Your task to perform on an android device: set the timer Image 0: 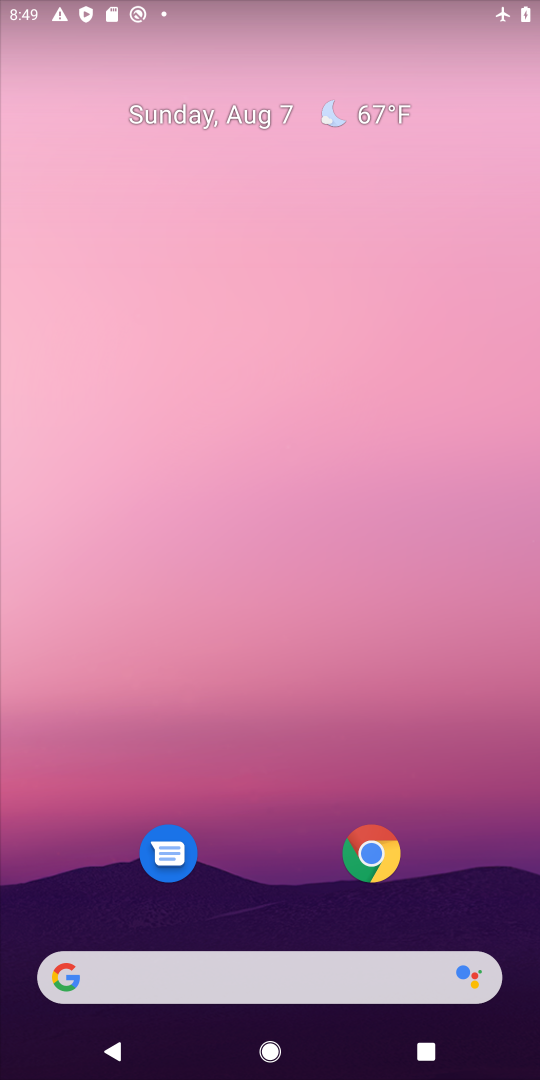
Step 0: drag from (312, 831) to (312, 379)
Your task to perform on an android device: set the timer Image 1: 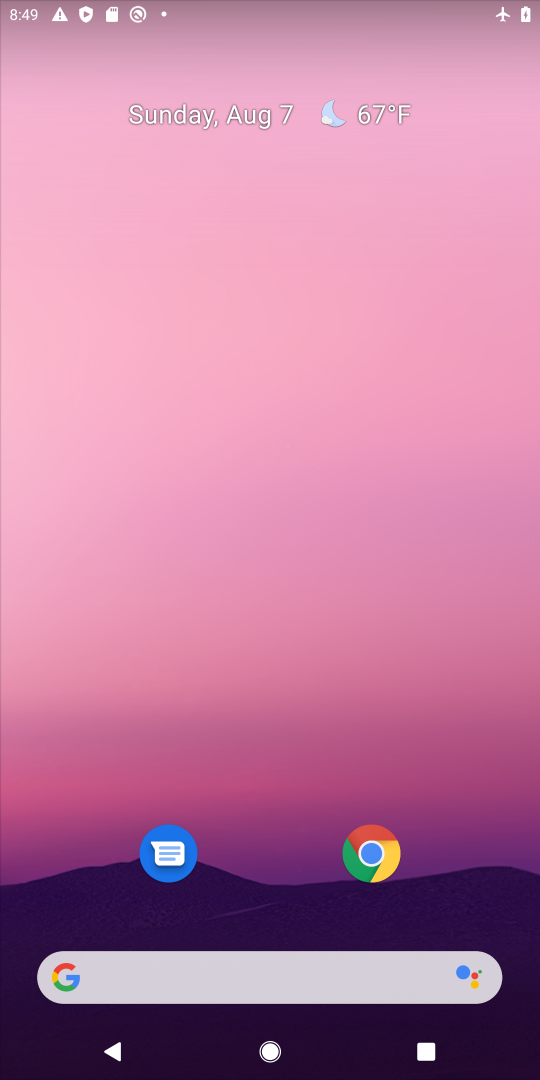
Step 1: drag from (239, 978) to (345, 305)
Your task to perform on an android device: set the timer Image 2: 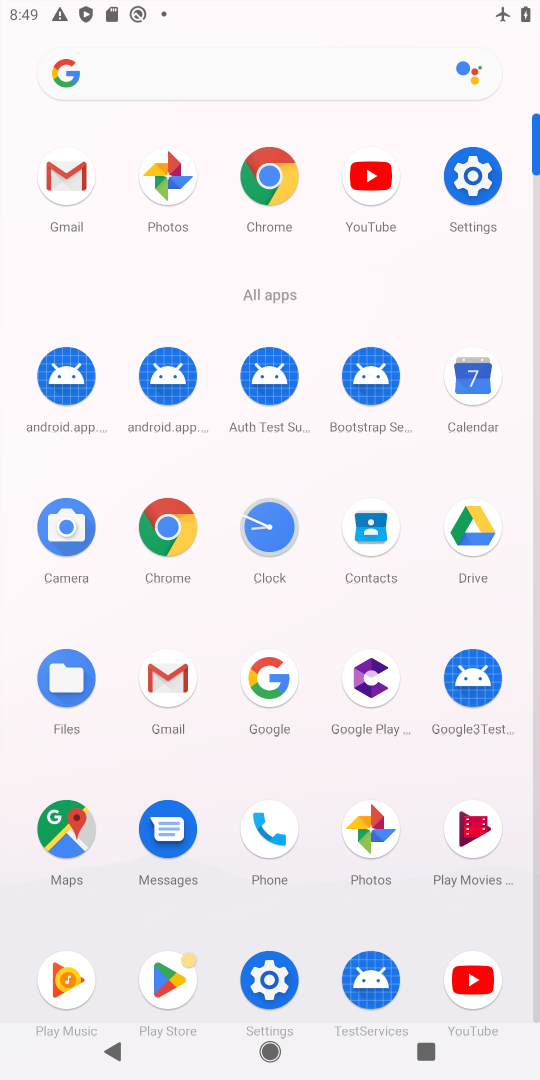
Step 2: click (280, 174)
Your task to perform on an android device: set the timer Image 3: 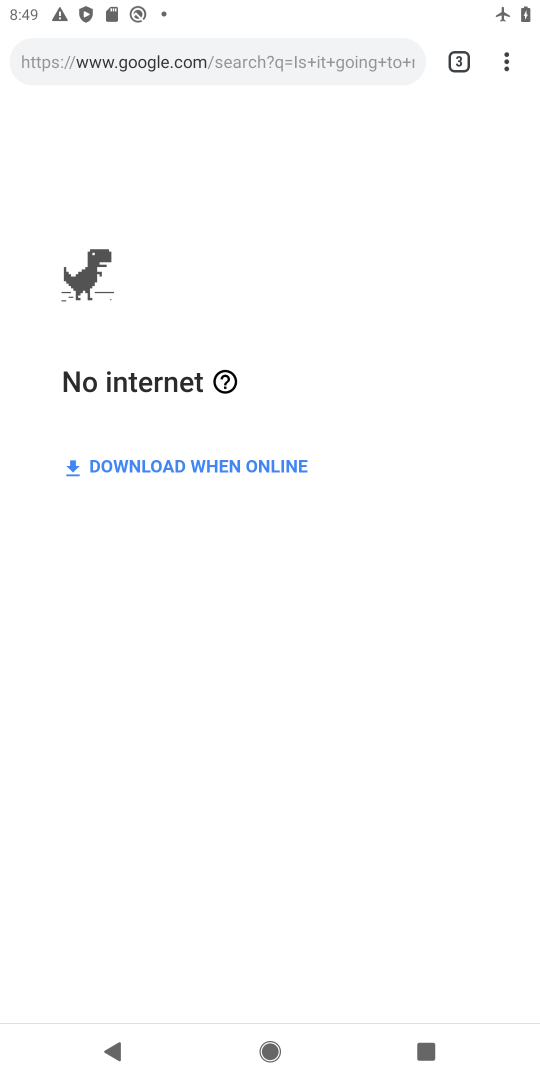
Step 3: click (515, 56)
Your task to perform on an android device: set the timer Image 4: 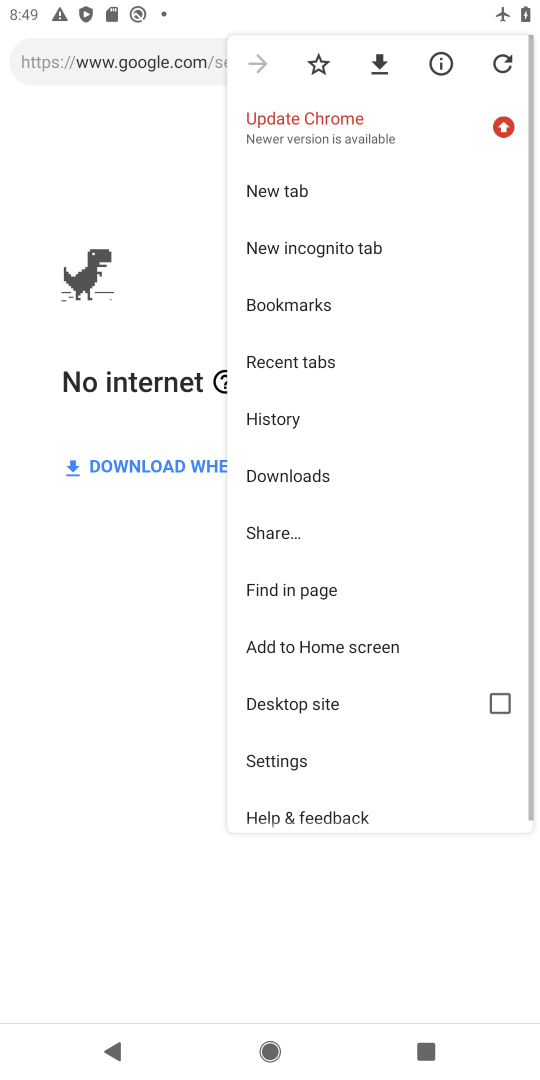
Step 4: drag from (502, 56) to (539, 365)
Your task to perform on an android device: set the timer Image 5: 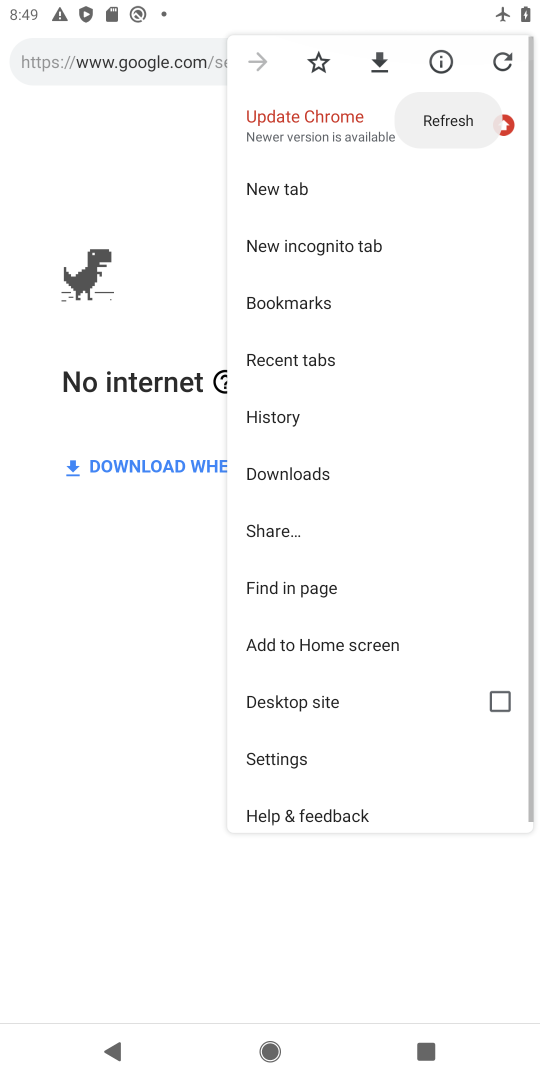
Step 5: press home button
Your task to perform on an android device: set the timer Image 6: 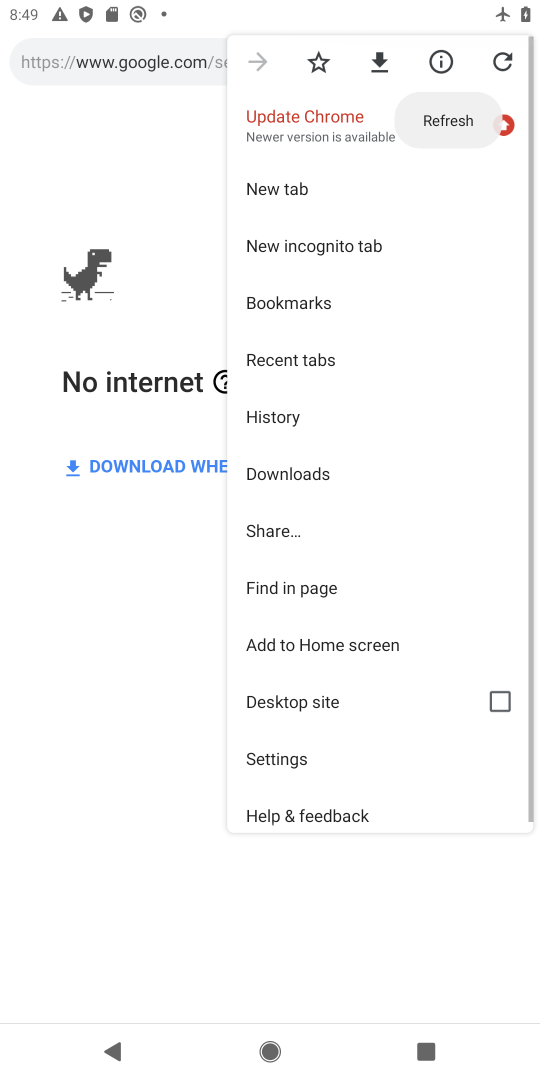
Step 6: click (477, 584)
Your task to perform on an android device: set the timer Image 7: 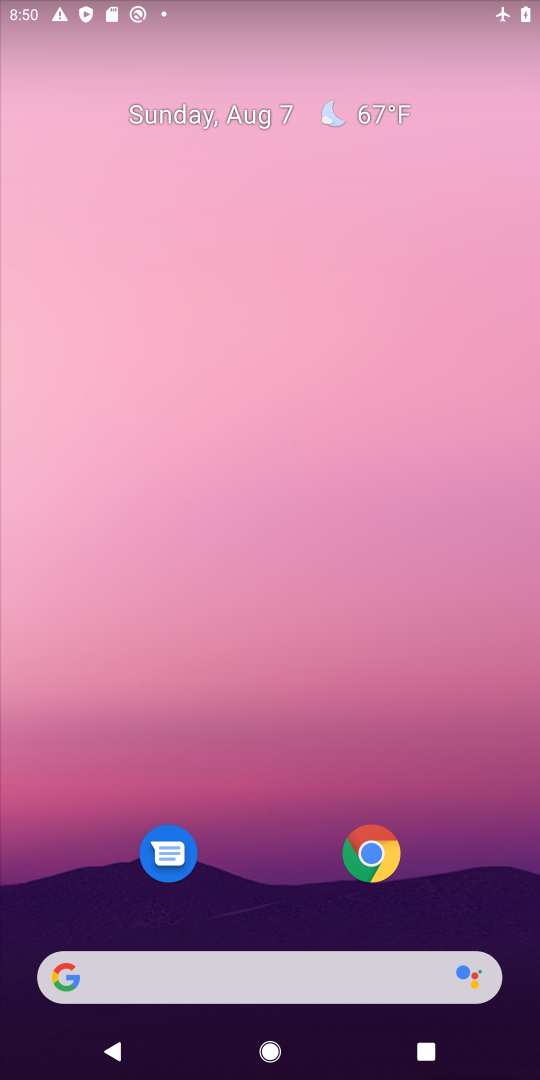
Step 7: drag from (319, 886) to (319, 313)
Your task to perform on an android device: set the timer Image 8: 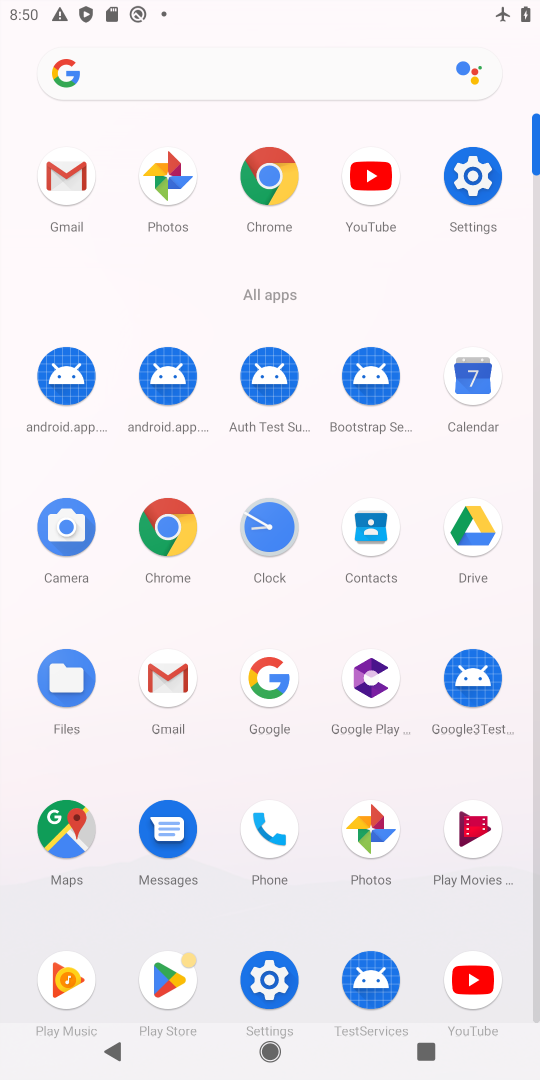
Step 8: click (271, 525)
Your task to perform on an android device: set the timer Image 9: 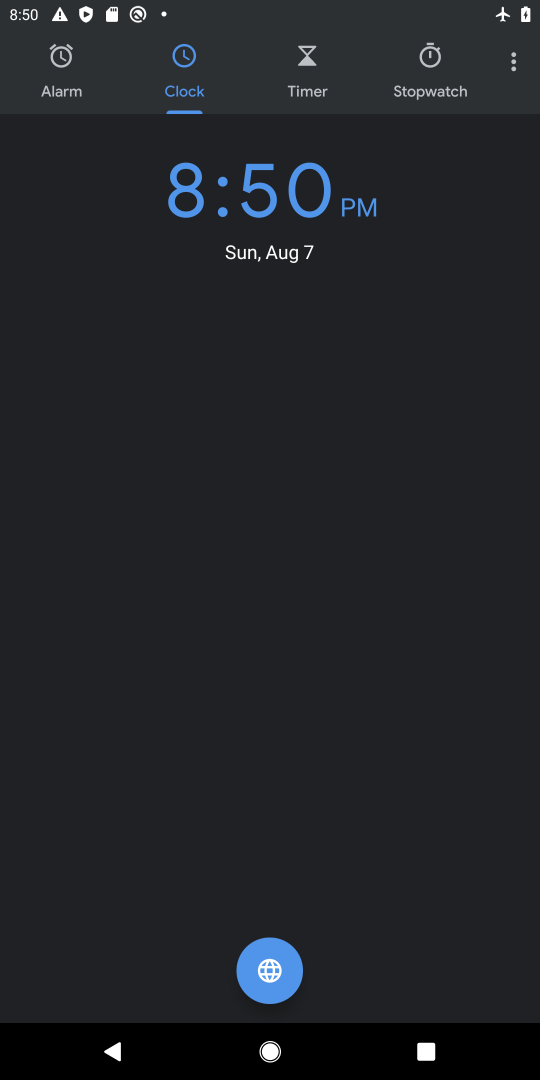
Step 9: click (304, 68)
Your task to perform on an android device: set the timer Image 10: 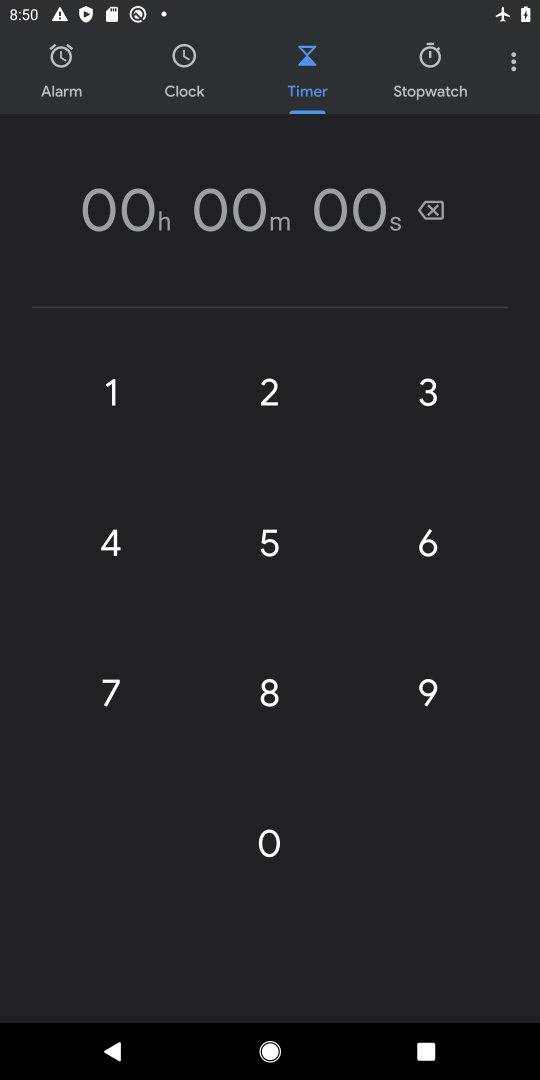
Step 10: click (298, 217)
Your task to perform on an android device: set the timer Image 11: 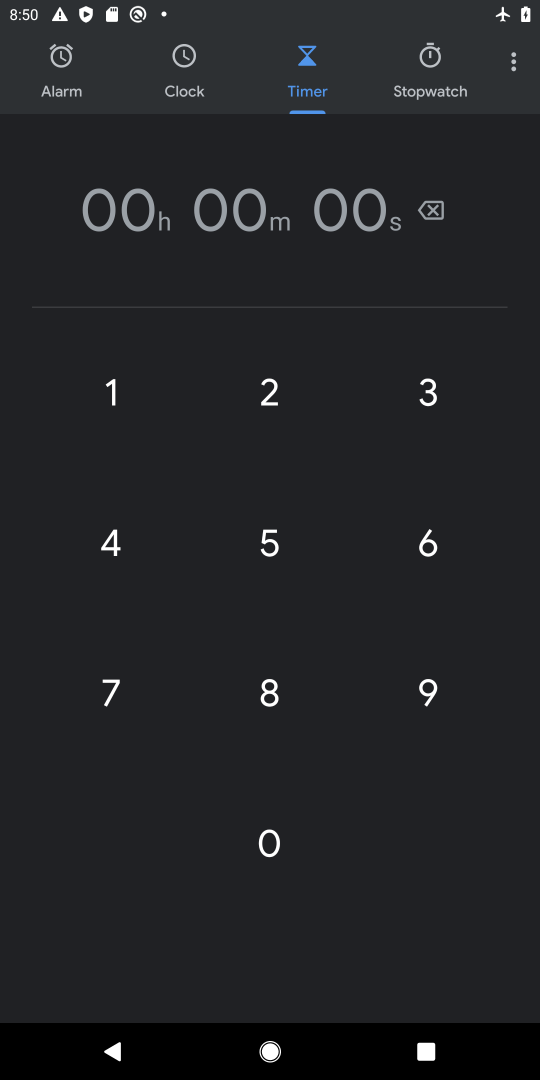
Step 11: type "65656565656 "
Your task to perform on an android device: set the timer Image 12: 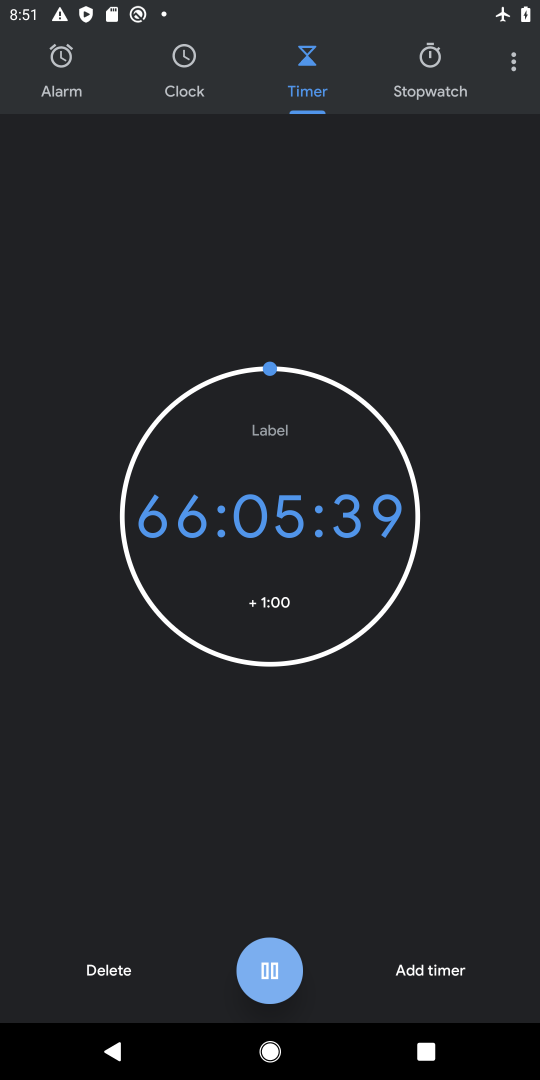
Step 12: task complete